Your task to perform on an android device: turn off picture-in-picture Image 0: 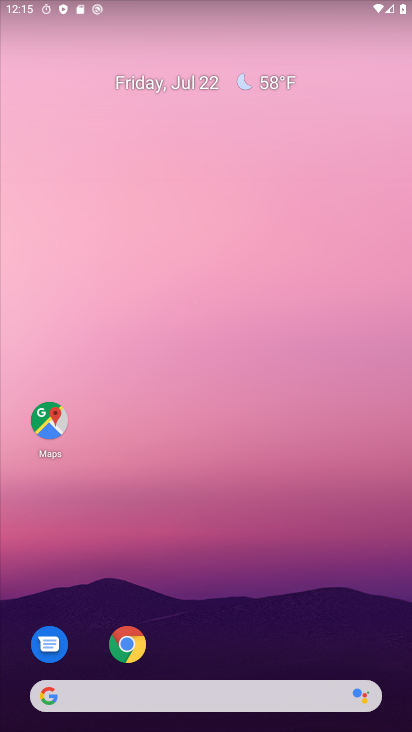
Step 0: drag from (191, 629) to (248, 196)
Your task to perform on an android device: turn off picture-in-picture Image 1: 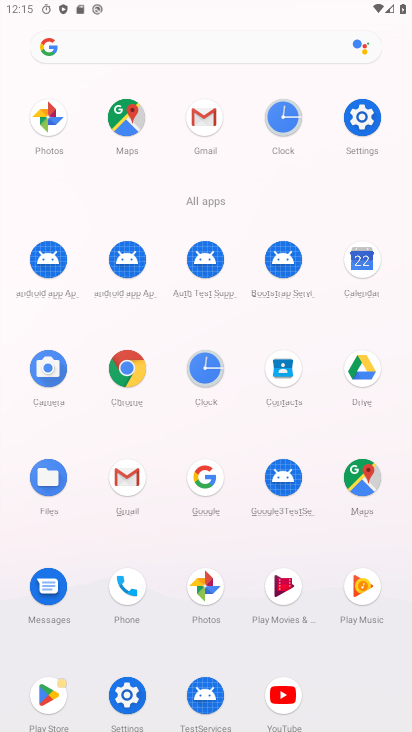
Step 1: click (356, 120)
Your task to perform on an android device: turn off picture-in-picture Image 2: 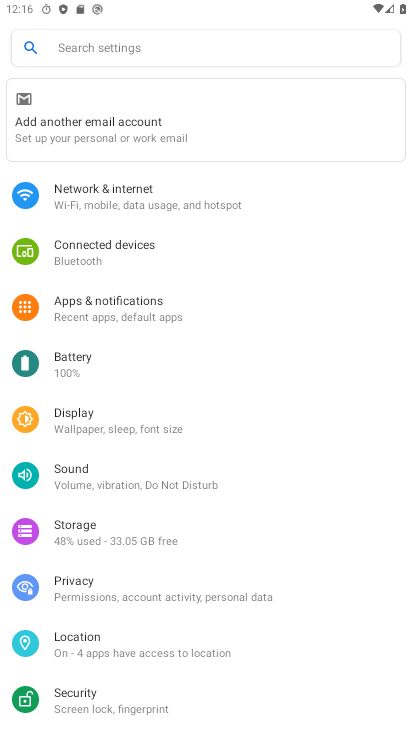
Step 2: click (179, 303)
Your task to perform on an android device: turn off picture-in-picture Image 3: 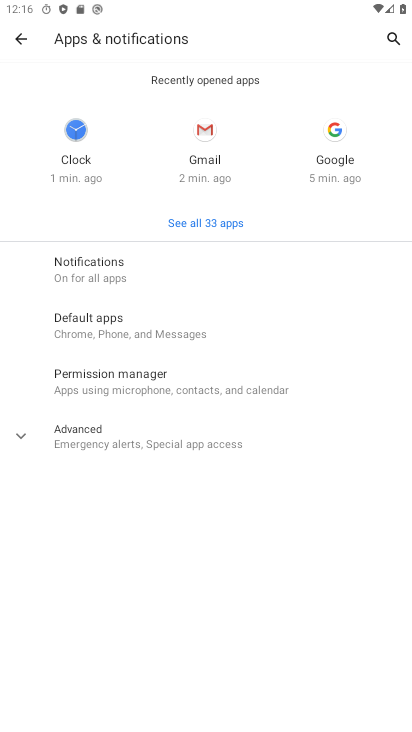
Step 3: click (109, 448)
Your task to perform on an android device: turn off picture-in-picture Image 4: 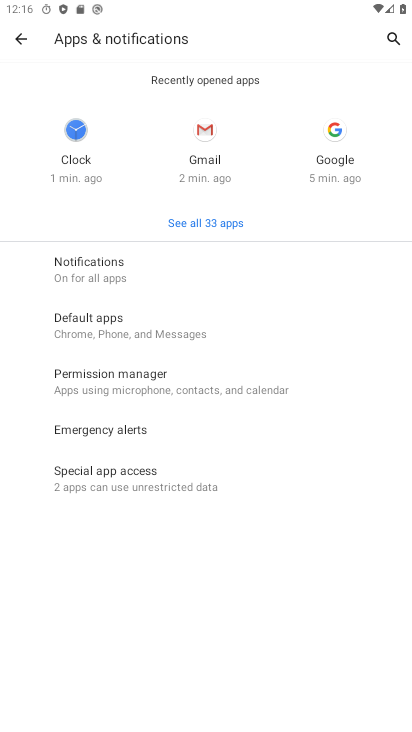
Step 4: click (108, 267)
Your task to perform on an android device: turn off picture-in-picture Image 5: 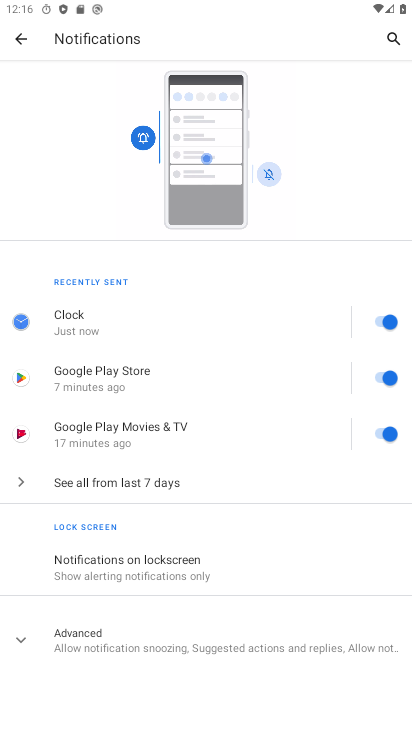
Step 5: click (107, 629)
Your task to perform on an android device: turn off picture-in-picture Image 6: 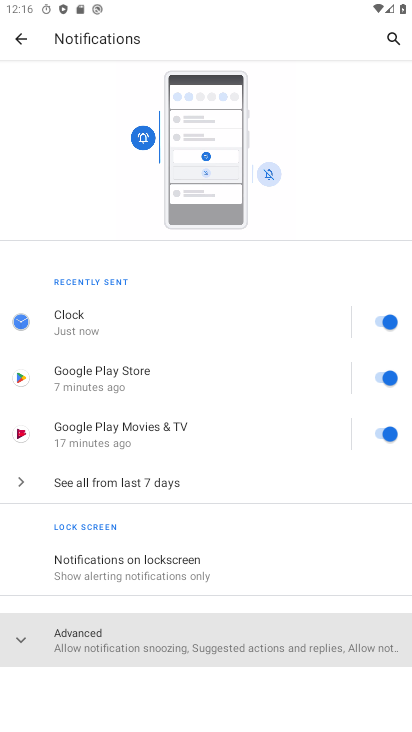
Step 6: drag from (134, 601) to (193, 160)
Your task to perform on an android device: turn off picture-in-picture Image 7: 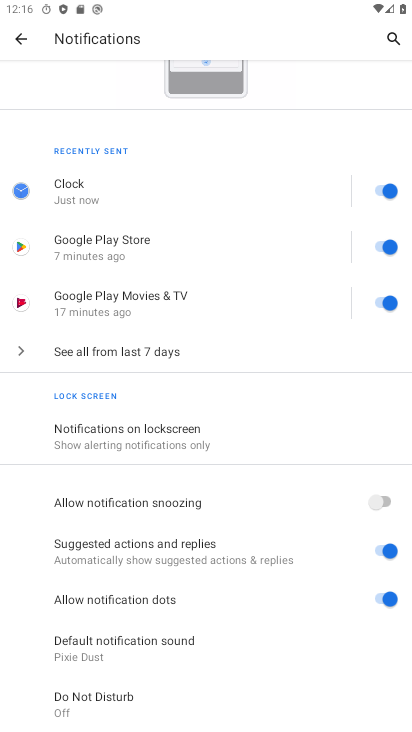
Step 7: drag from (148, 618) to (230, 242)
Your task to perform on an android device: turn off picture-in-picture Image 8: 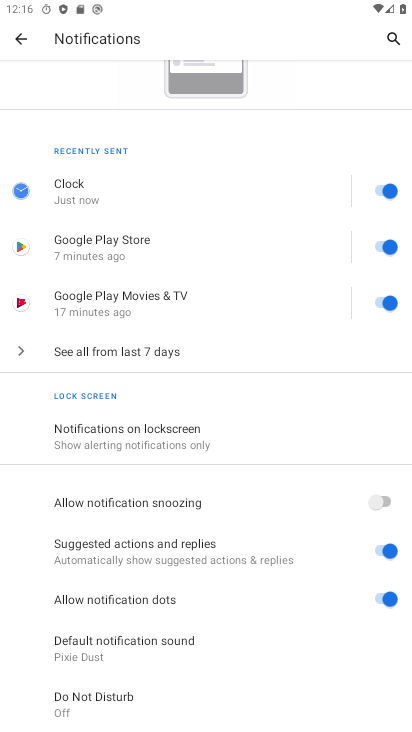
Step 8: click (23, 39)
Your task to perform on an android device: turn off picture-in-picture Image 9: 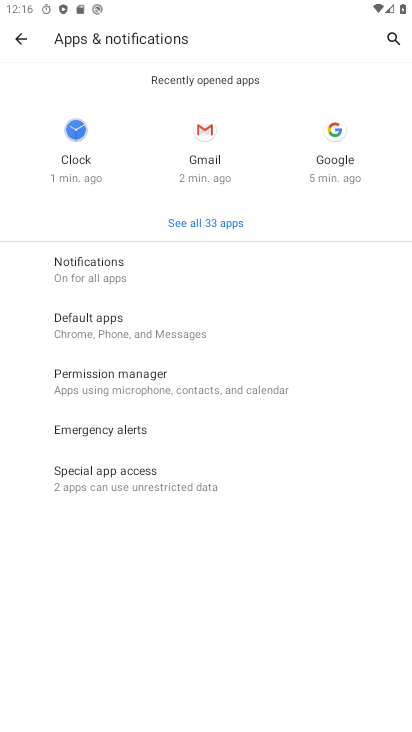
Step 9: click (92, 478)
Your task to perform on an android device: turn off picture-in-picture Image 10: 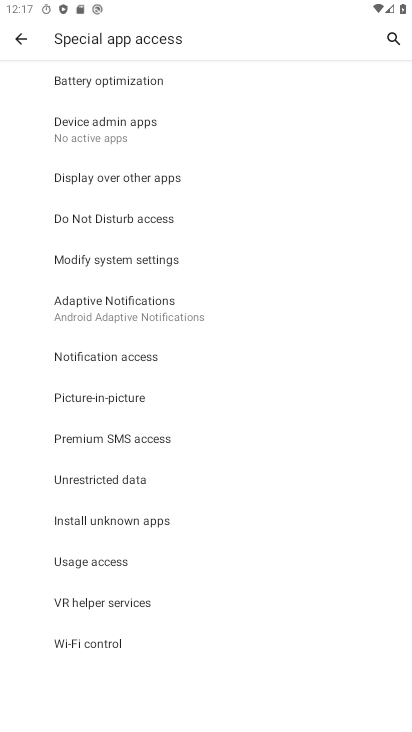
Step 10: click (125, 404)
Your task to perform on an android device: turn off picture-in-picture Image 11: 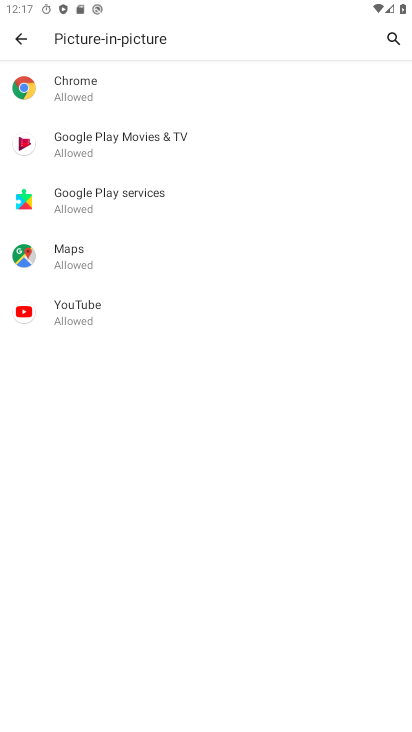
Step 11: task complete